Your task to perform on an android device: make emails show in primary in the gmail app Image 0: 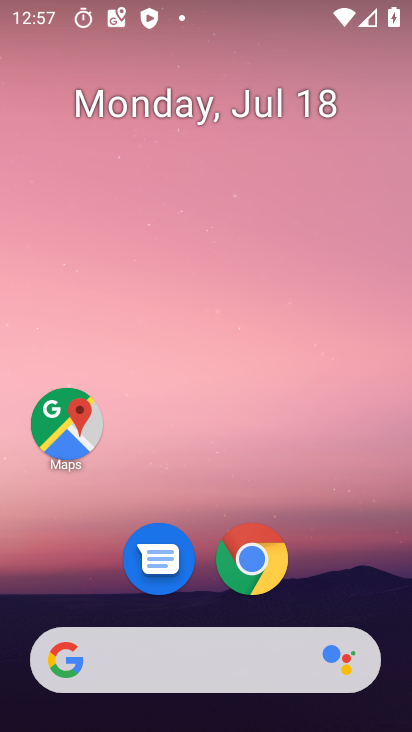
Step 0: drag from (225, 614) to (263, 57)
Your task to perform on an android device: make emails show in primary in the gmail app Image 1: 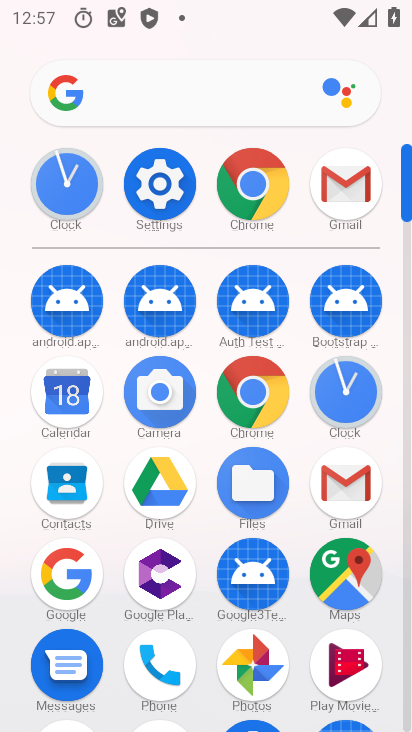
Step 1: click (355, 179)
Your task to perform on an android device: make emails show in primary in the gmail app Image 2: 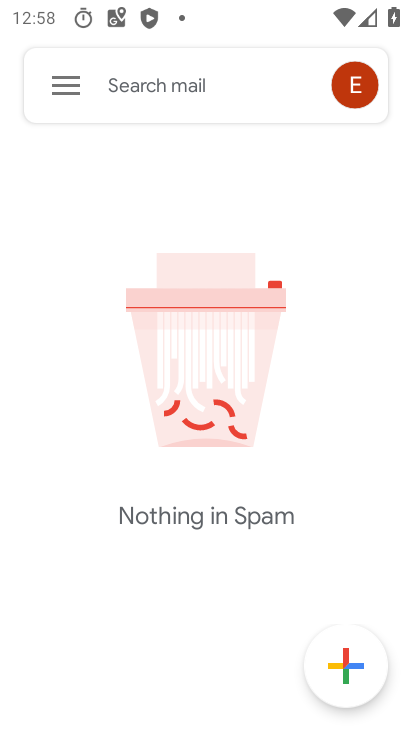
Step 2: click (44, 74)
Your task to perform on an android device: make emails show in primary in the gmail app Image 3: 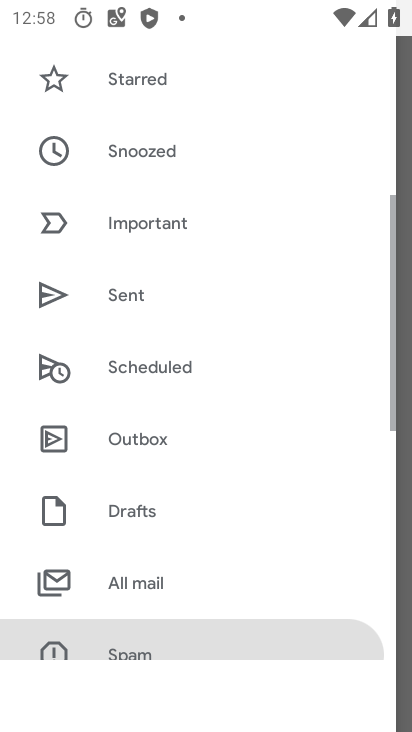
Step 3: drag from (210, 558) to (247, 10)
Your task to perform on an android device: make emails show in primary in the gmail app Image 4: 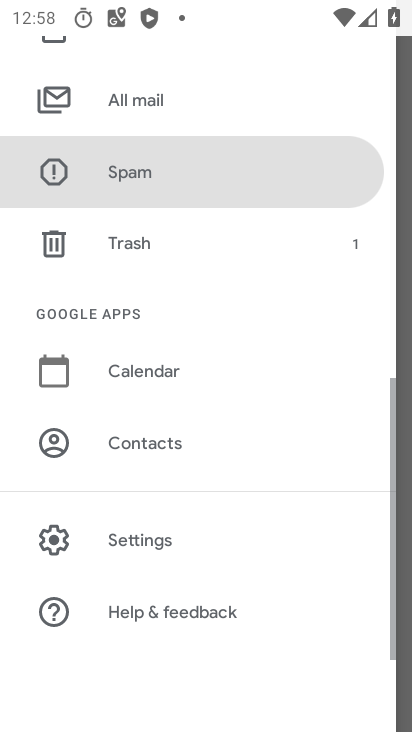
Step 4: click (175, 537)
Your task to perform on an android device: make emails show in primary in the gmail app Image 5: 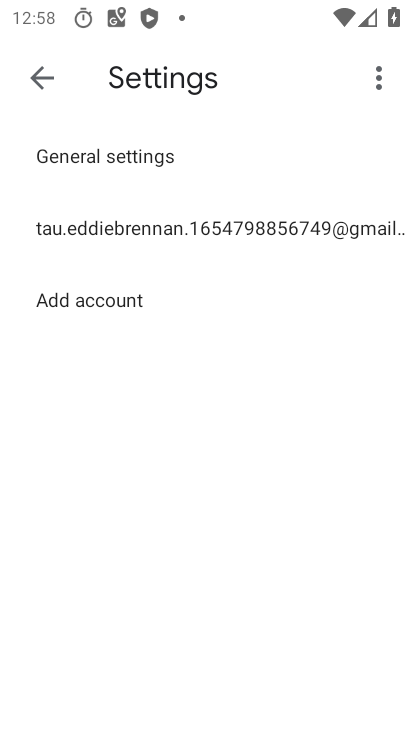
Step 5: click (145, 214)
Your task to perform on an android device: make emails show in primary in the gmail app Image 6: 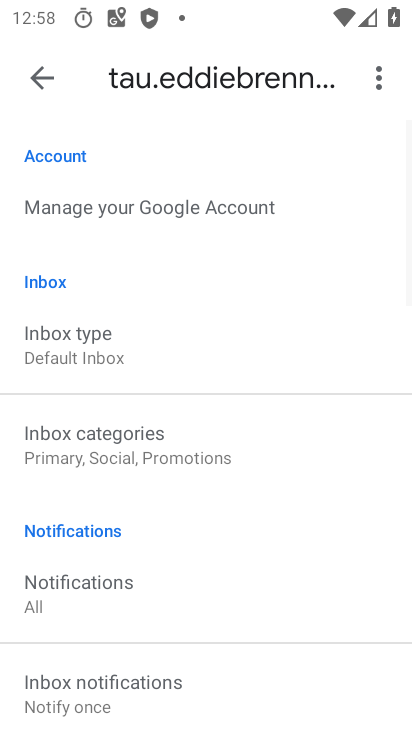
Step 6: click (85, 448)
Your task to perform on an android device: make emails show in primary in the gmail app Image 7: 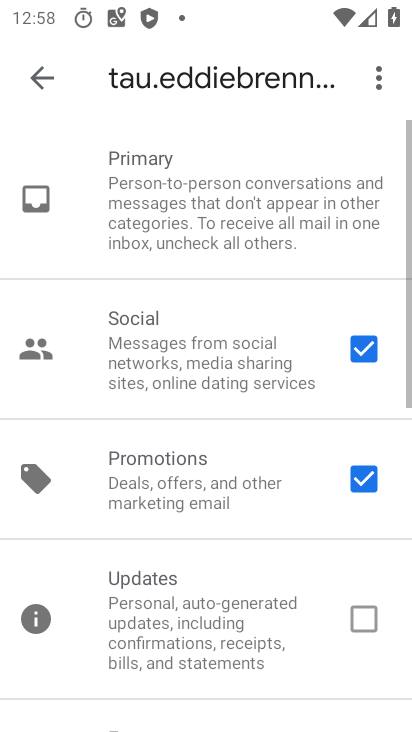
Step 7: click (367, 609)
Your task to perform on an android device: make emails show in primary in the gmail app Image 8: 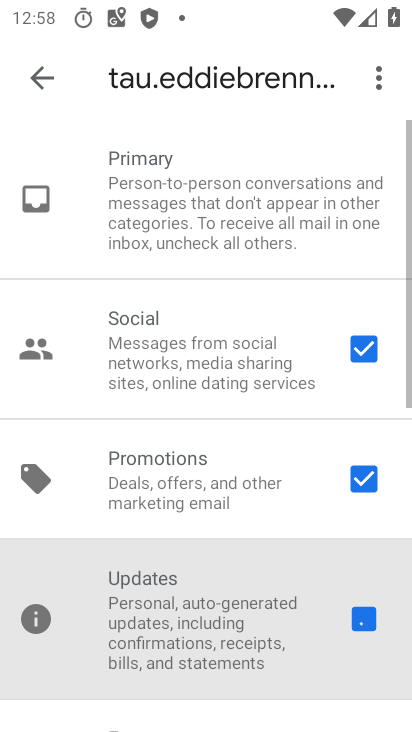
Step 8: drag from (221, 629) to (257, 185)
Your task to perform on an android device: make emails show in primary in the gmail app Image 9: 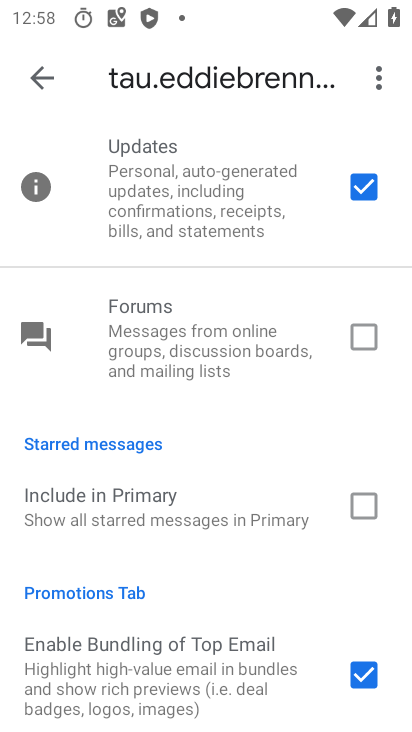
Step 9: click (351, 474)
Your task to perform on an android device: make emails show in primary in the gmail app Image 10: 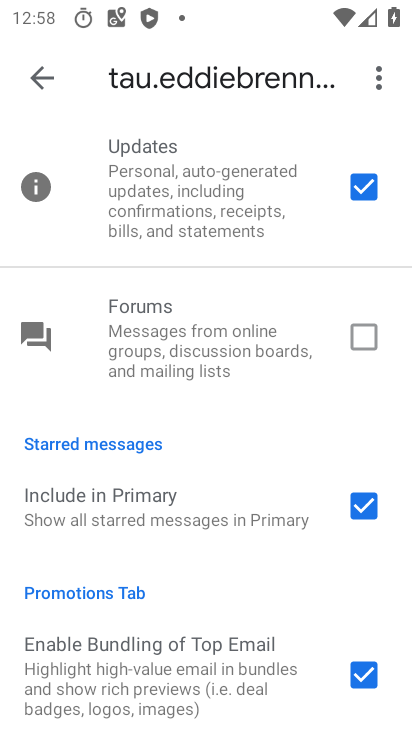
Step 10: click (381, 330)
Your task to perform on an android device: make emails show in primary in the gmail app Image 11: 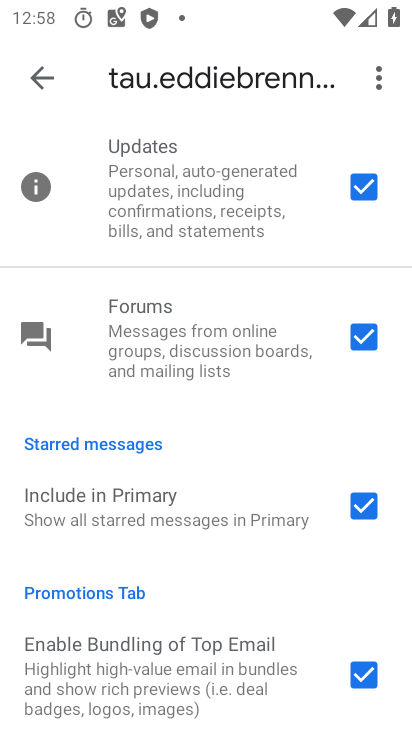
Step 11: task complete